Your task to perform on an android device: What's the weather today? Image 0: 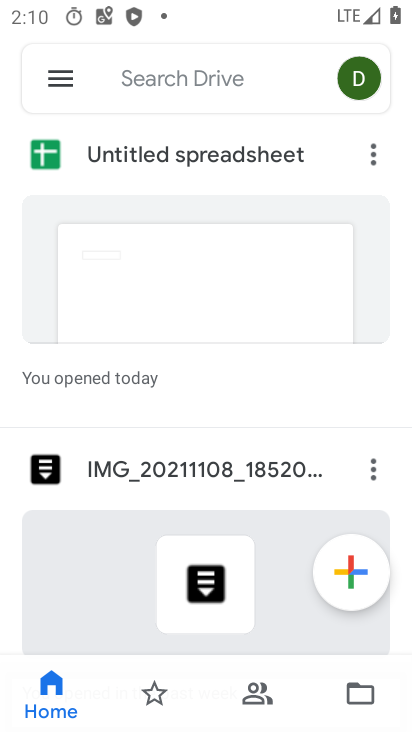
Step 0: press home button
Your task to perform on an android device: What's the weather today? Image 1: 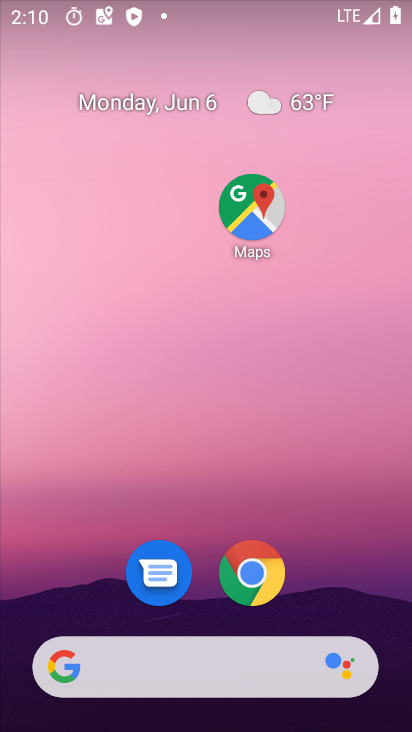
Step 1: click (158, 682)
Your task to perform on an android device: What's the weather today? Image 2: 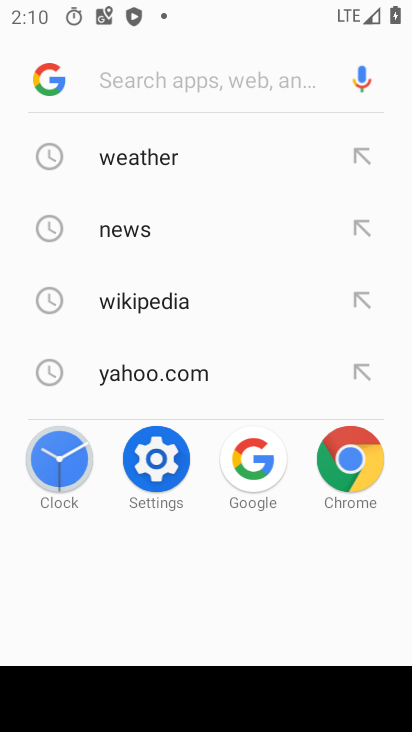
Step 2: click (174, 160)
Your task to perform on an android device: What's the weather today? Image 3: 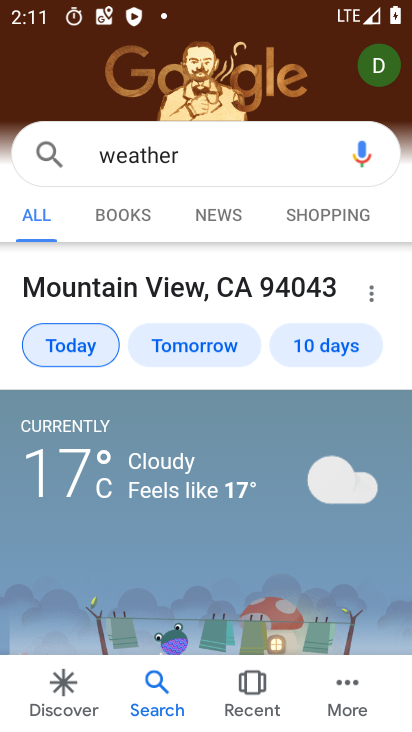
Step 3: task complete